Your task to perform on an android device: remove spam from my inbox in the gmail app Image 0: 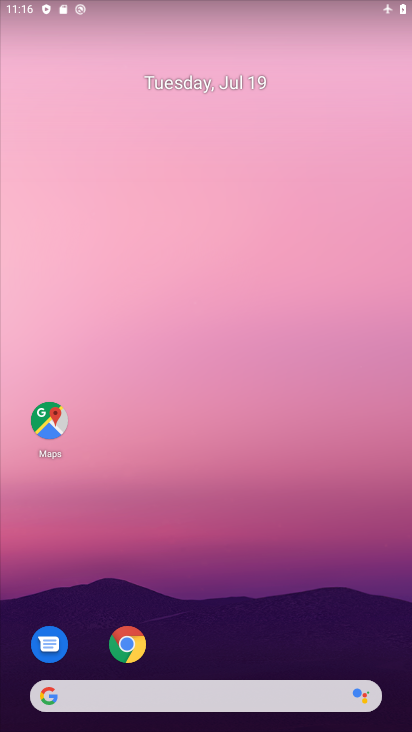
Step 0: drag from (34, 632) to (129, 89)
Your task to perform on an android device: remove spam from my inbox in the gmail app Image 1: 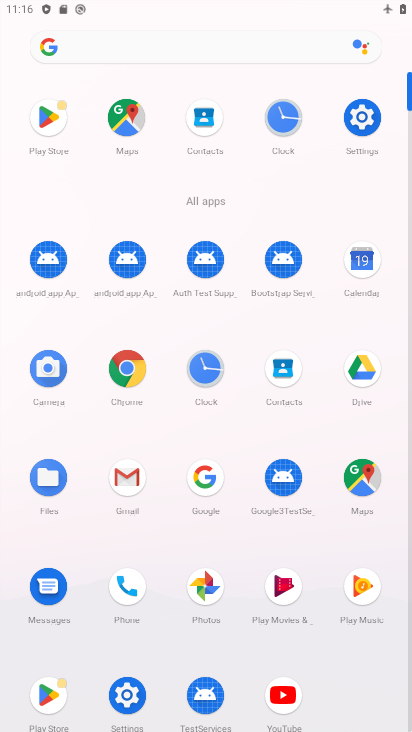
Step 1: click (120, 495)
Your task to perform on an android device: remove spam from my inbox in the gmail app Image 2: 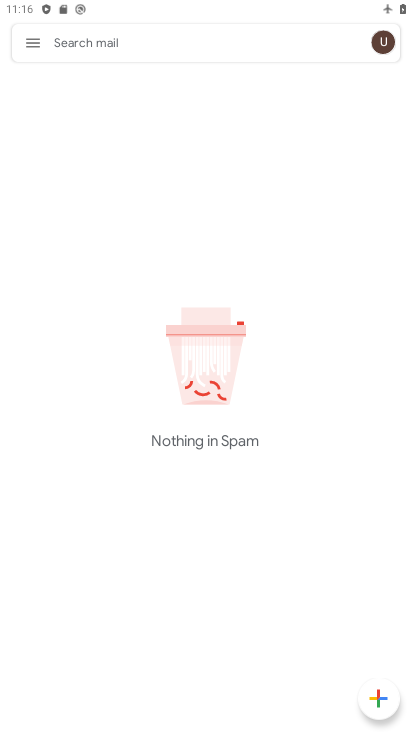
Step 2: click (19, 41)
Your task to perform on an android device: remove spam from my inbox in the gmail app Image 3: 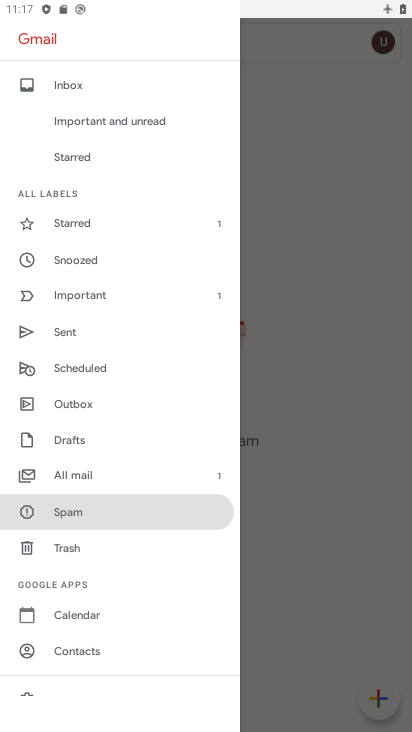
Step 3: click (51, 510)
Your task to perform on an android device: remove spam from my inbox in the gmail app Image 4: 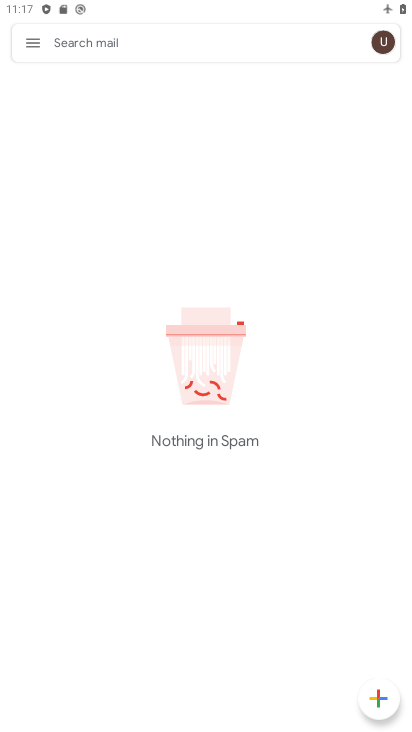
Step 4: task complete